Your task to perform on an android device: Clear the shopping cart on walmart.com. Add jbl charge 4 to the cart on walmart.com Image 0: 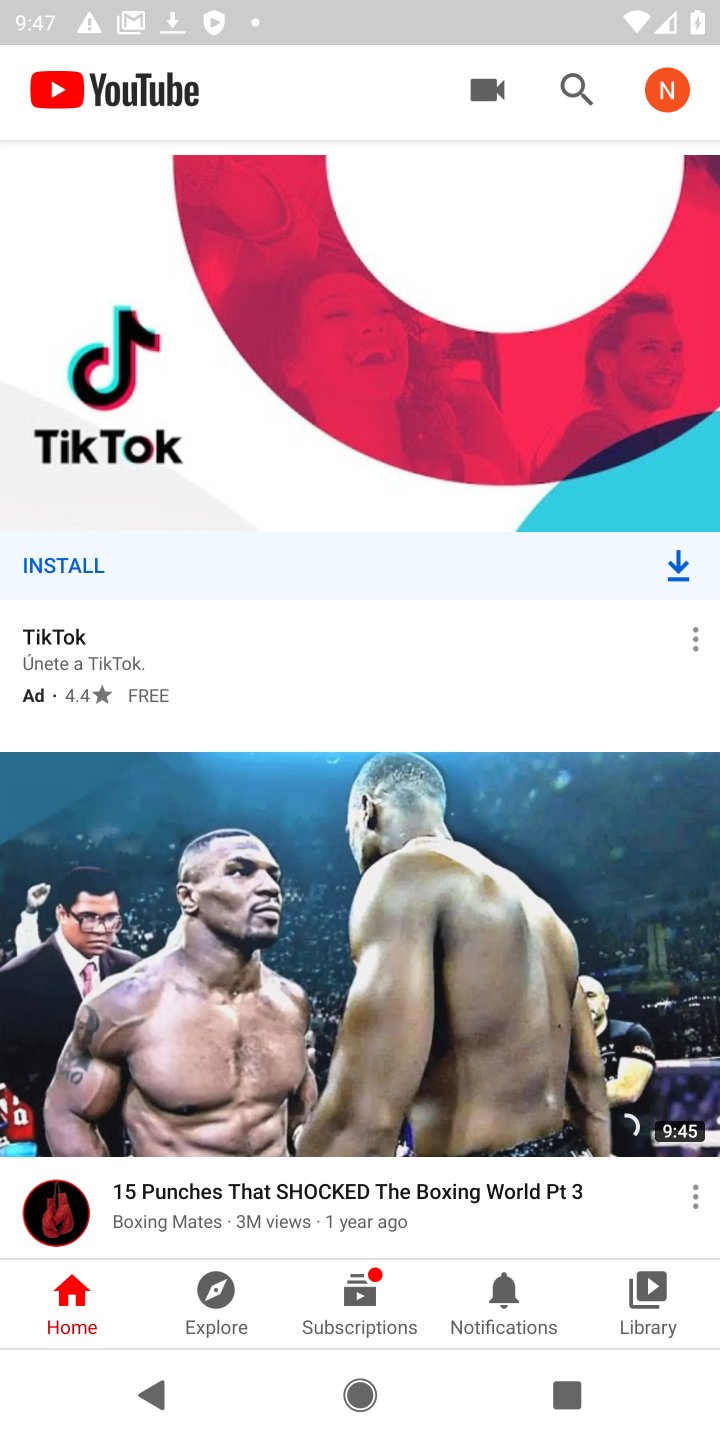
Step 0: press home button
Your task to perform on an android device: Clear the shopping cart on walmart.com. Add jbl charge 4 to the cart on walmart.com Image 1: 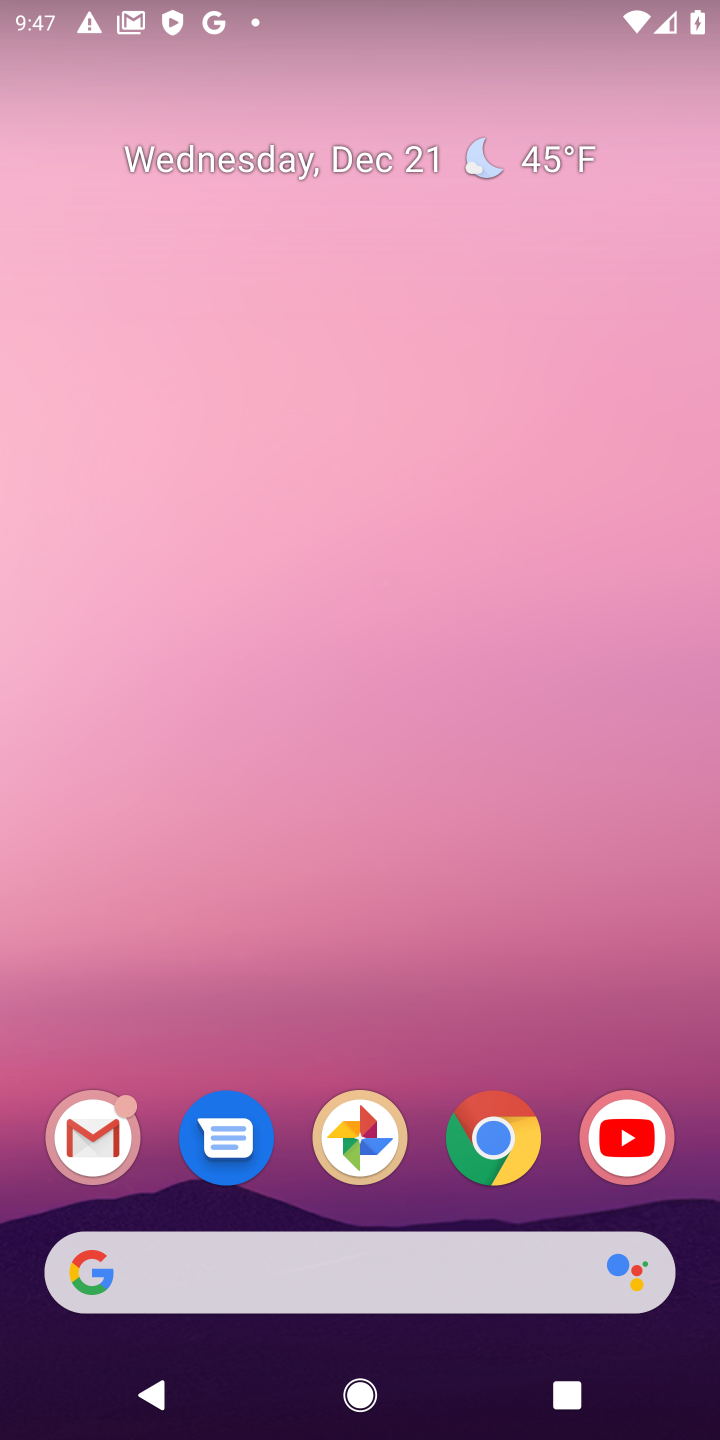
Step 1: click (502, 1144)
Your task to perform on an android device: Clear the shopping cart on walmart.com. Add jbl charge 4 to the cart on walmart.com Image 2: 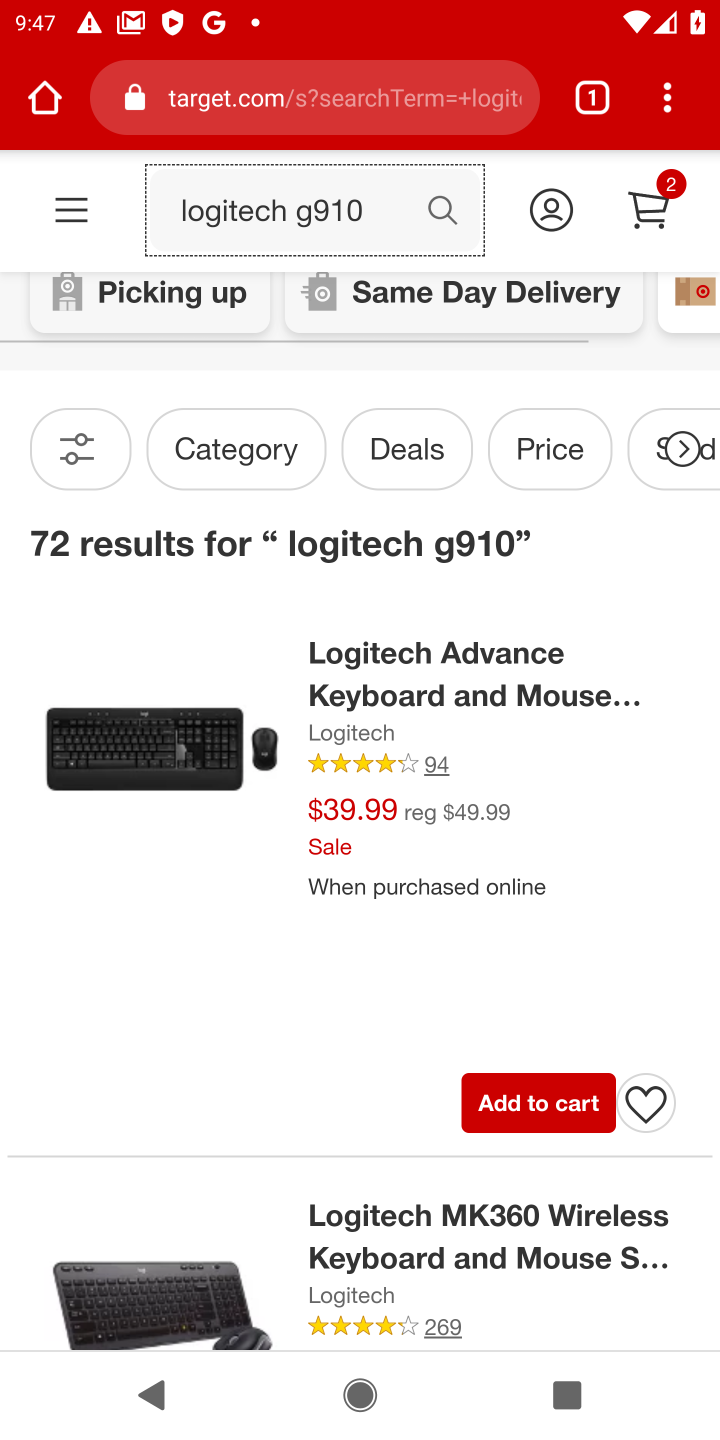
Step 2: click (302, 96)
Your task to perform on an android device: Clear the shopping cart on walmart.com. Add jbl charge 4 to the cart on walmart.com Image 3: 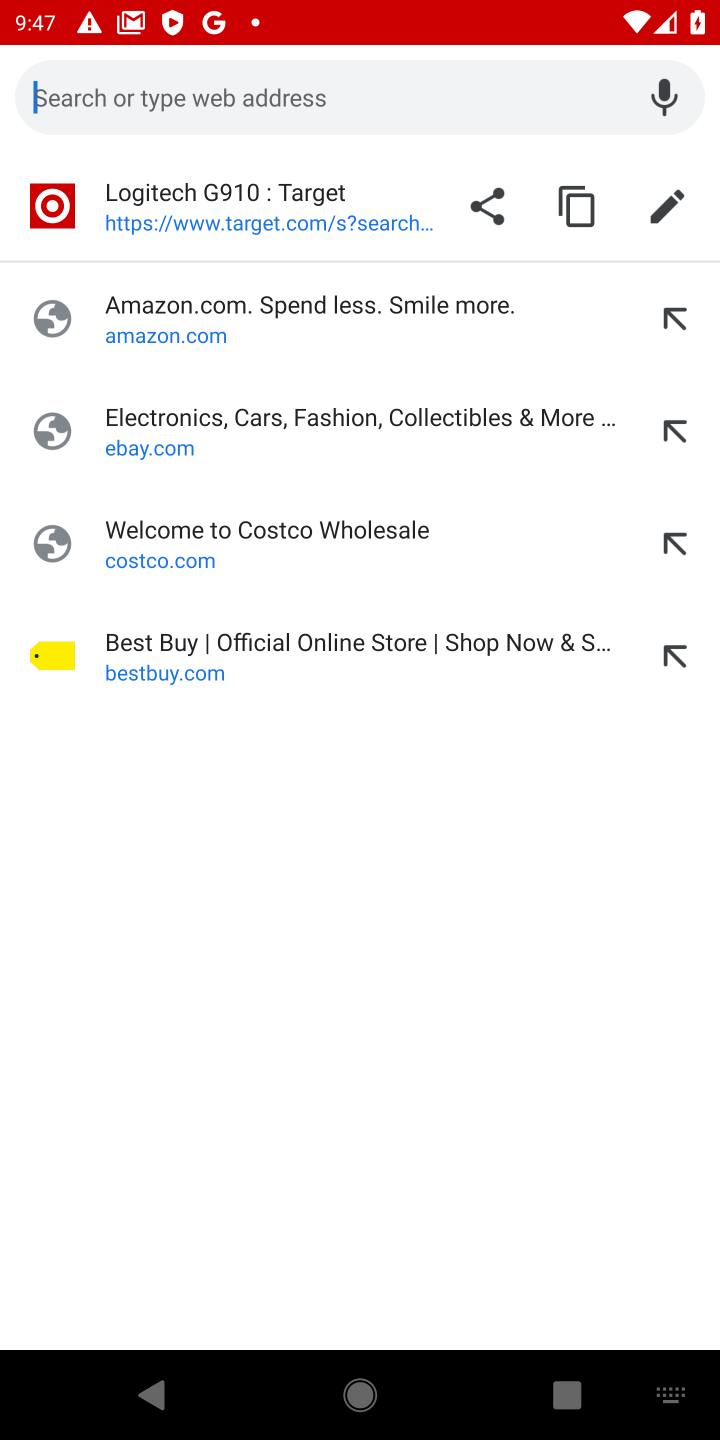
Step 3: type "walmart.com"
Your task to perform on an android device: Clear the shopping cart on walmart.com. Add jbl charge 4 to the cart on walmart.com Image 4: 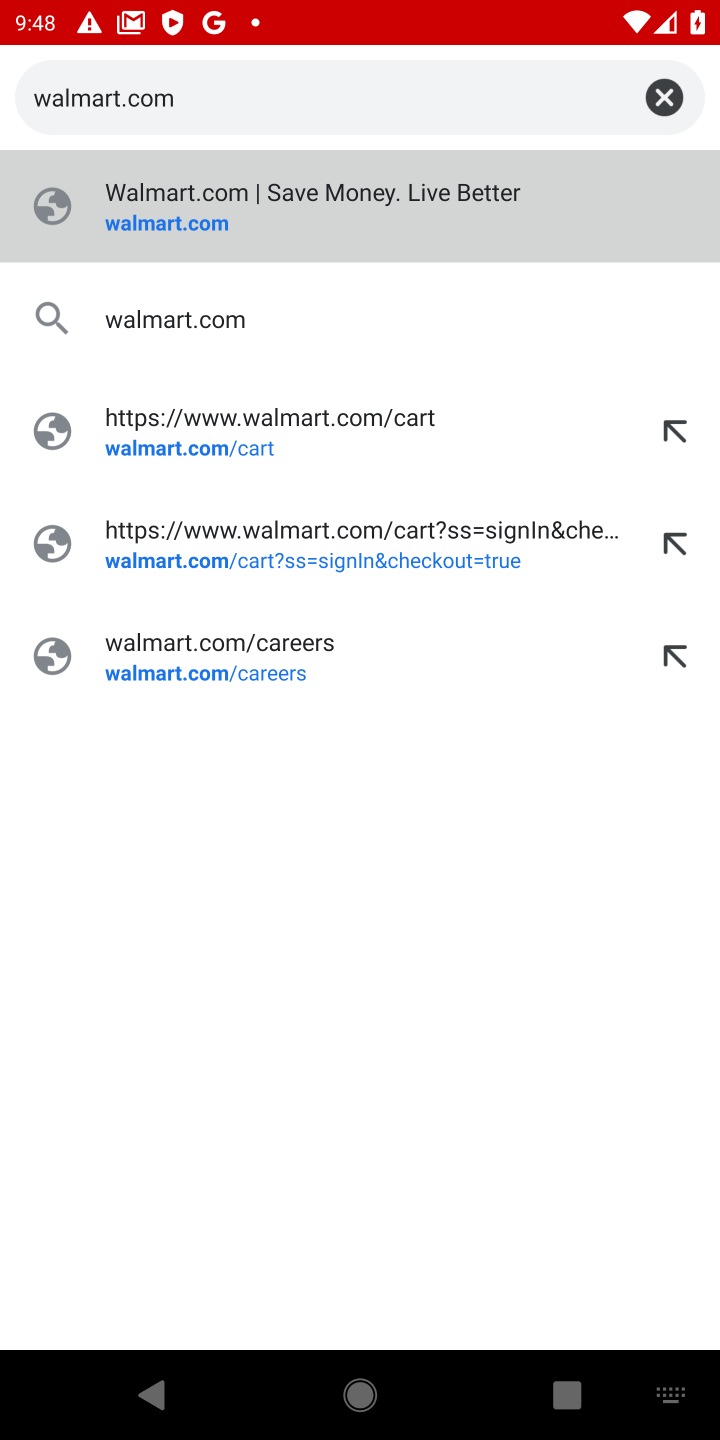
Step 4: click (161, 227)
Your task to perform on an android device: Clear the shopping cart on walmart.com. Add jbl charge 4 to the cart on walmart.com Image 5: 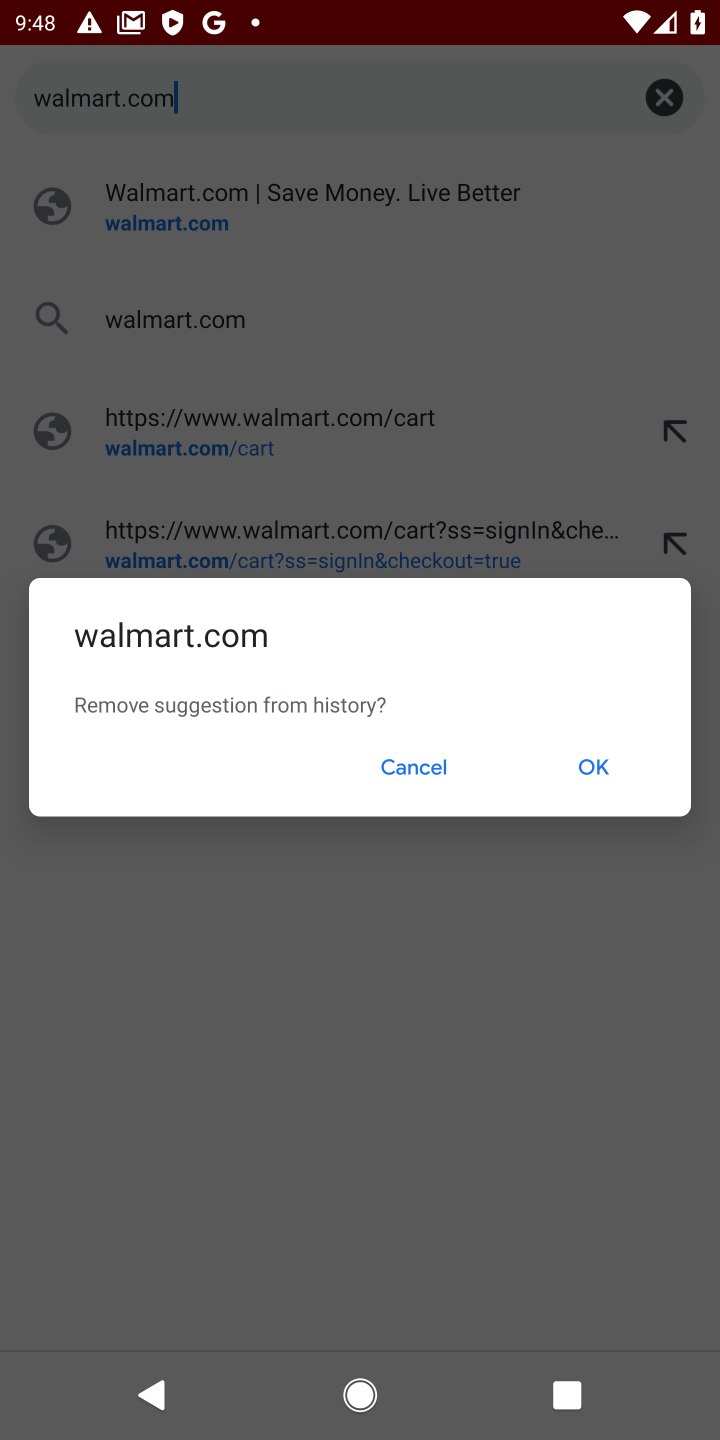
Step 5: click (404, 773)
Your task to perform on an android device: Clear the shopping cart on walmart.com. Add jbl charge 4 to the cart on walmart.com Image 6: 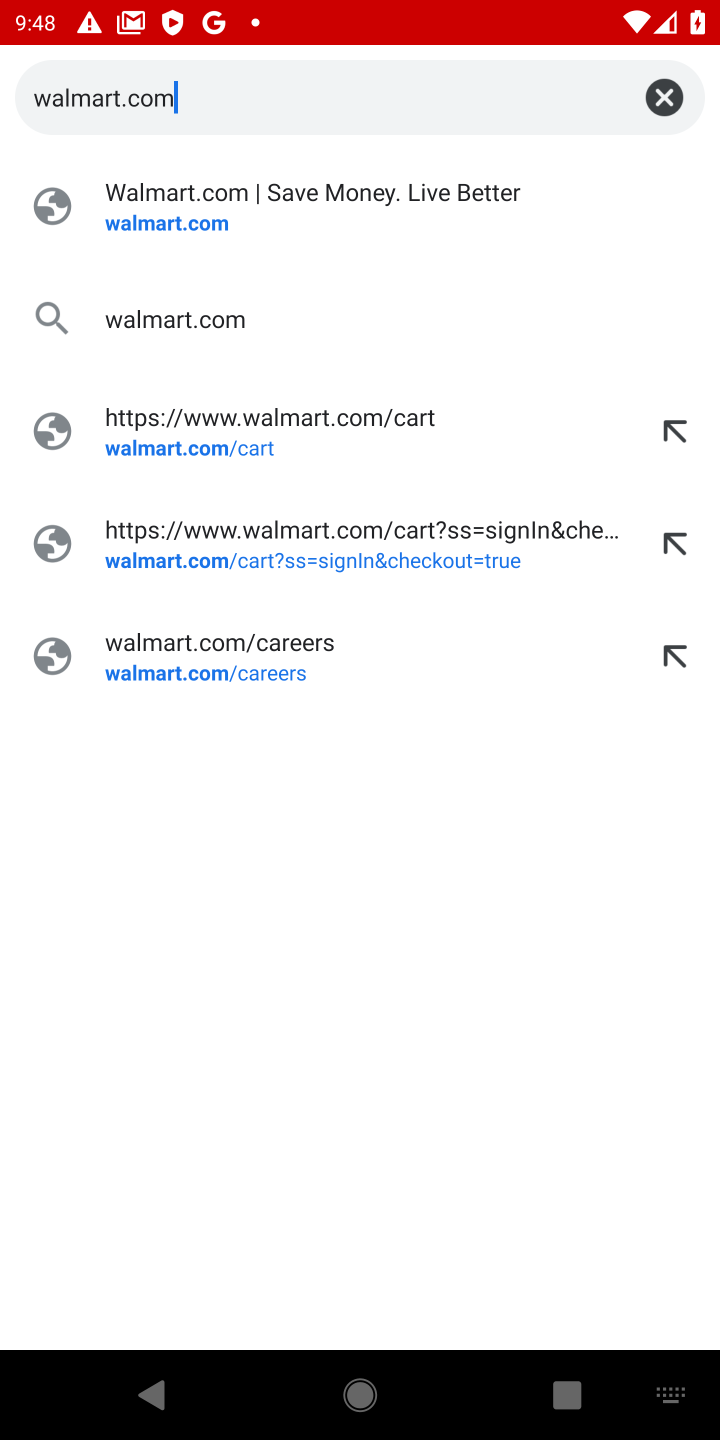
Step 6: click (164, 228)
Your task to perform on an android device: Clear the shopping cart on walmart.com. Add jbl charge 4 to the cart on walmart.com Image 7: 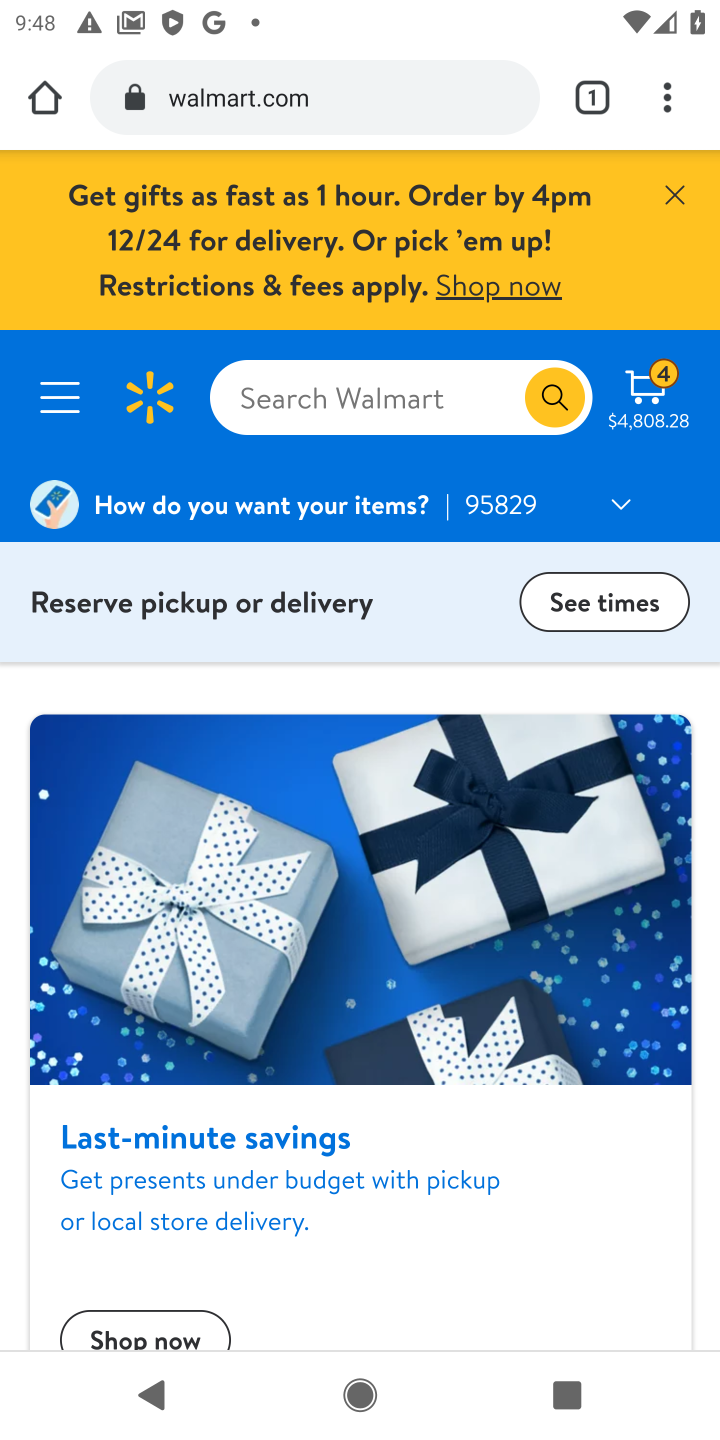
Step 7: click (649, 387)
Your task to perform on an android device: Clear the shopping cart on walmart.com. Add jbl charge 4 to the cart on walmart.com Image 8: 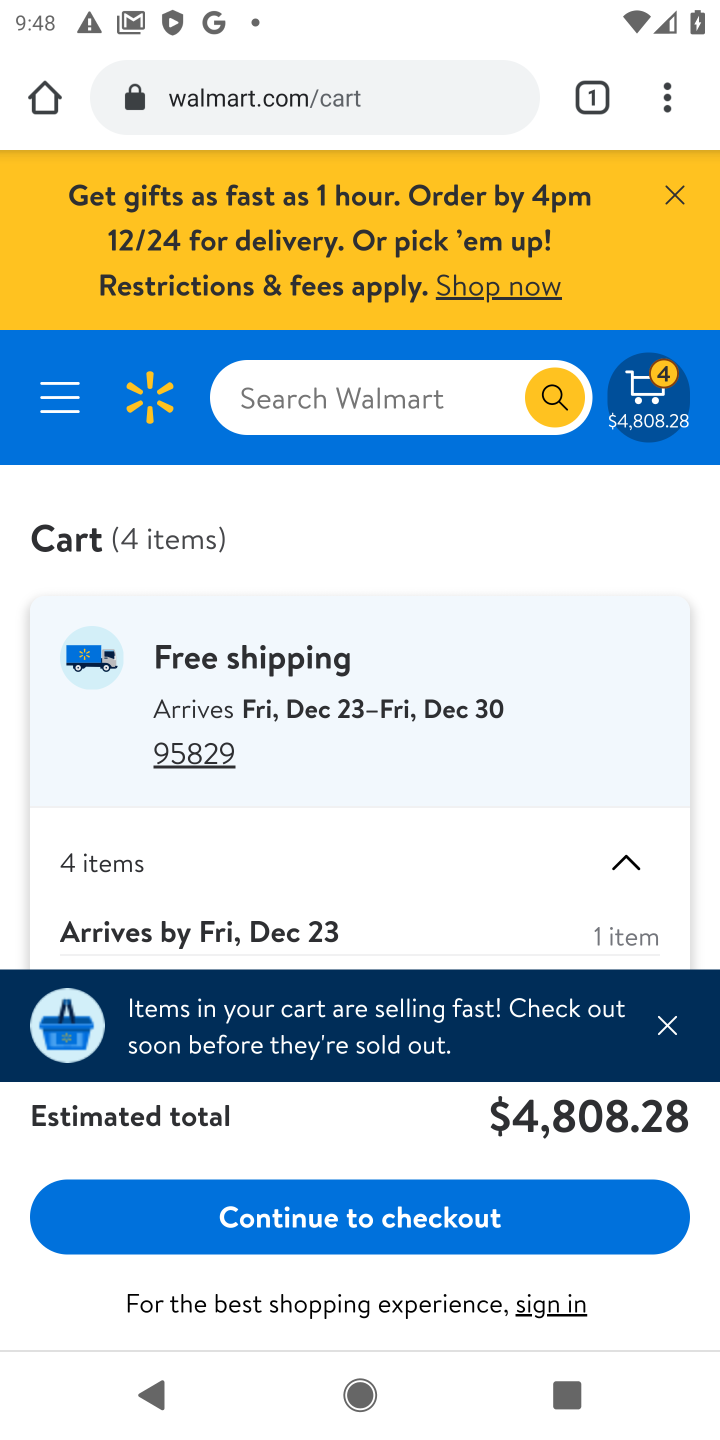
Step 8: drag from (299, 808) to (323, 251)
Your task to perform on an android device: Clear the shopping cart on walmart.com. Add jbl charge 4 to the cart on walmart.com Image 9: 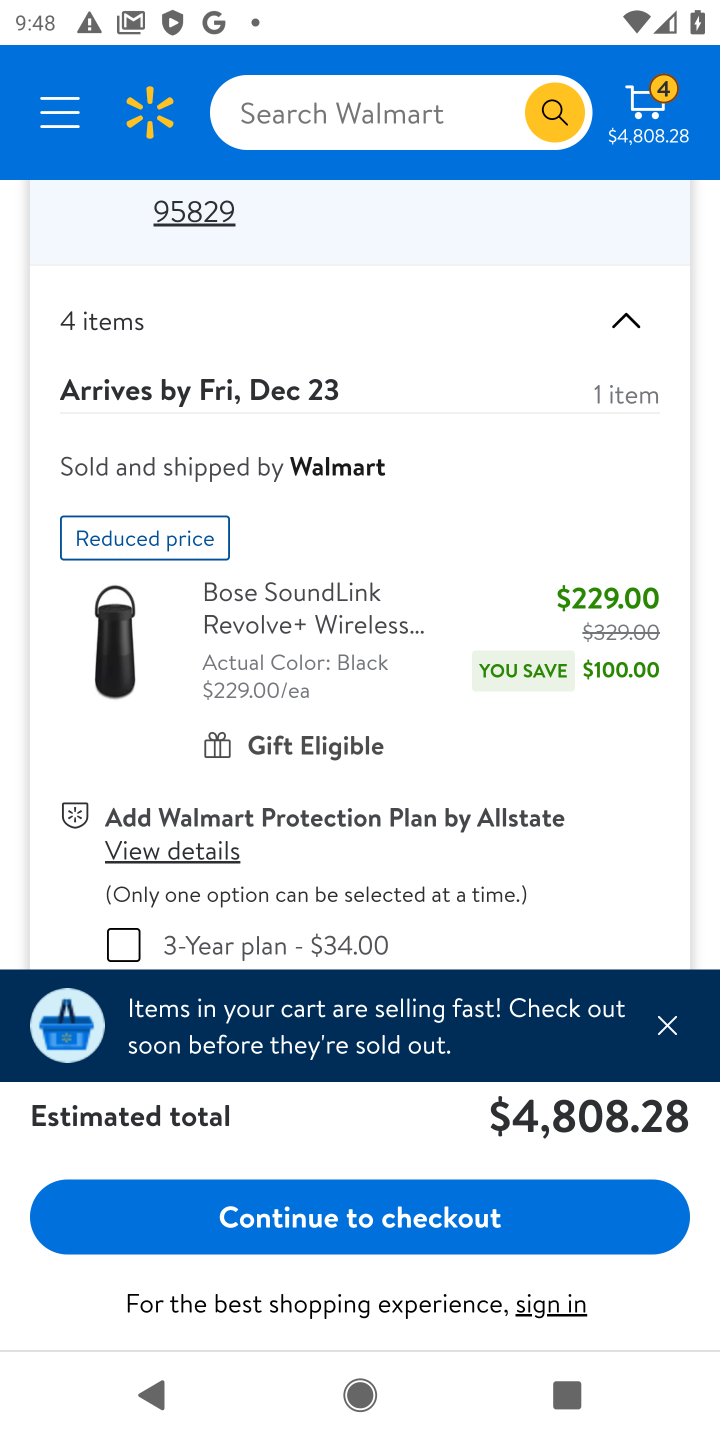
Step 9: drag from (257, 583) to (285, 369)
Your task to perform on an android device: Clear the shopping cart on walmart.com. Add jbl charge 4 to the cart on walmart.com Image 10: 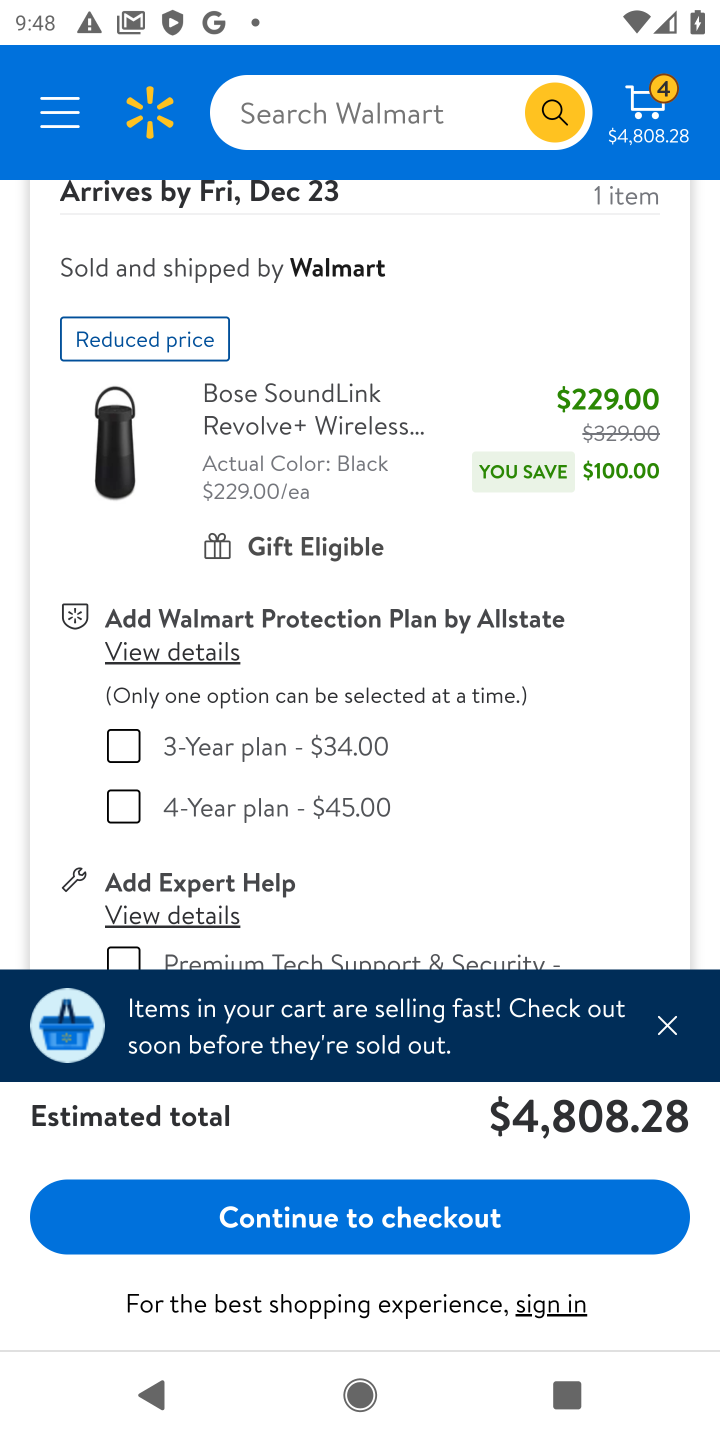
Step 10: drag from (350, 637) to (345, 453)
Your task to perform on an android device: Clear the shopping cart on walmart.com. Add jbl charge 4 to the cart on walmart.com Image 11: 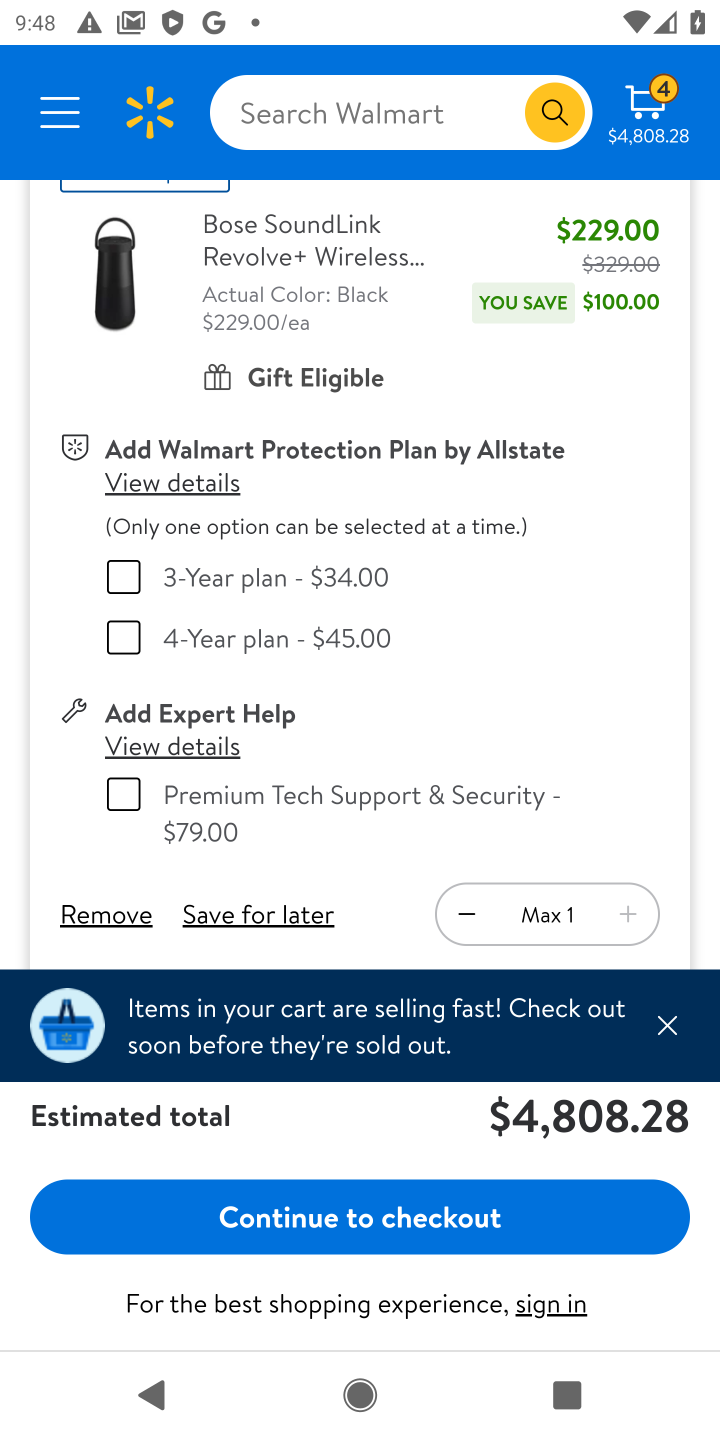
Step 11: click (95, 918)
Your task to perform on an android device: Clear the shopping cart on walmart.com. Add jbl charge 4 to the cart on walmart.com Image 12: 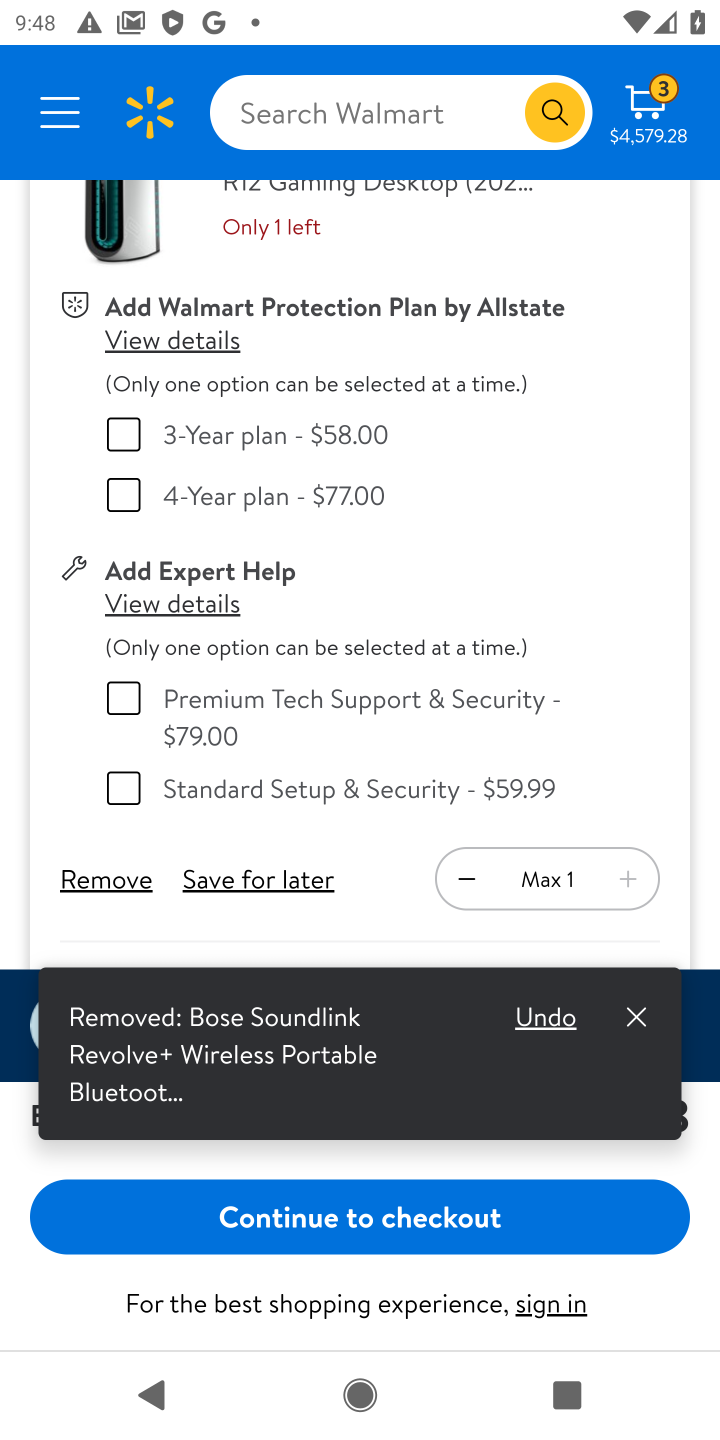
Step 12: click (100, 889)
Your task to perform on an android device: Clear the shopping cart on walmart.com. Add jbl charge 4 to the cart on walmart.com Image 13: 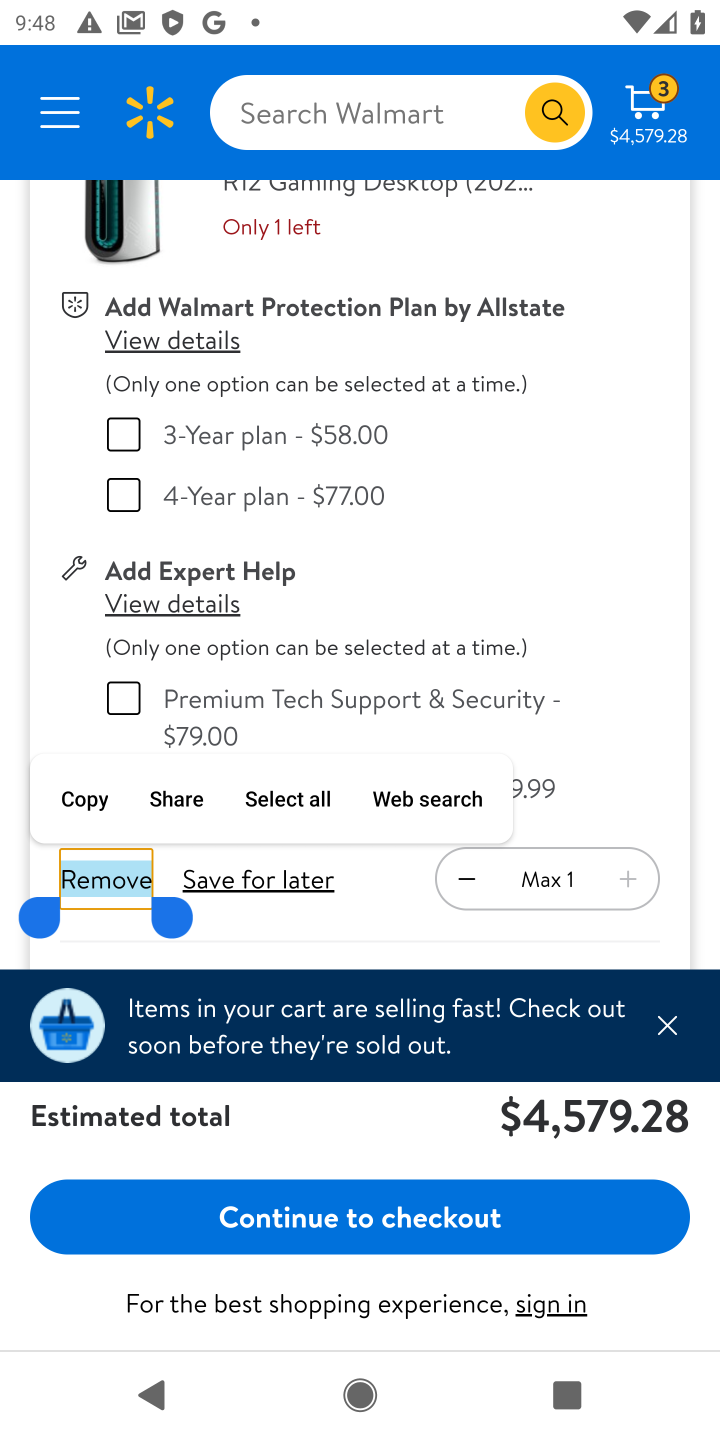
Step 13: click (100, 888)
Your task to perform on an android device: Clear the shopping cart on walmart.com. Add jbl charge 4 to the cart on walmart.com Image 14: 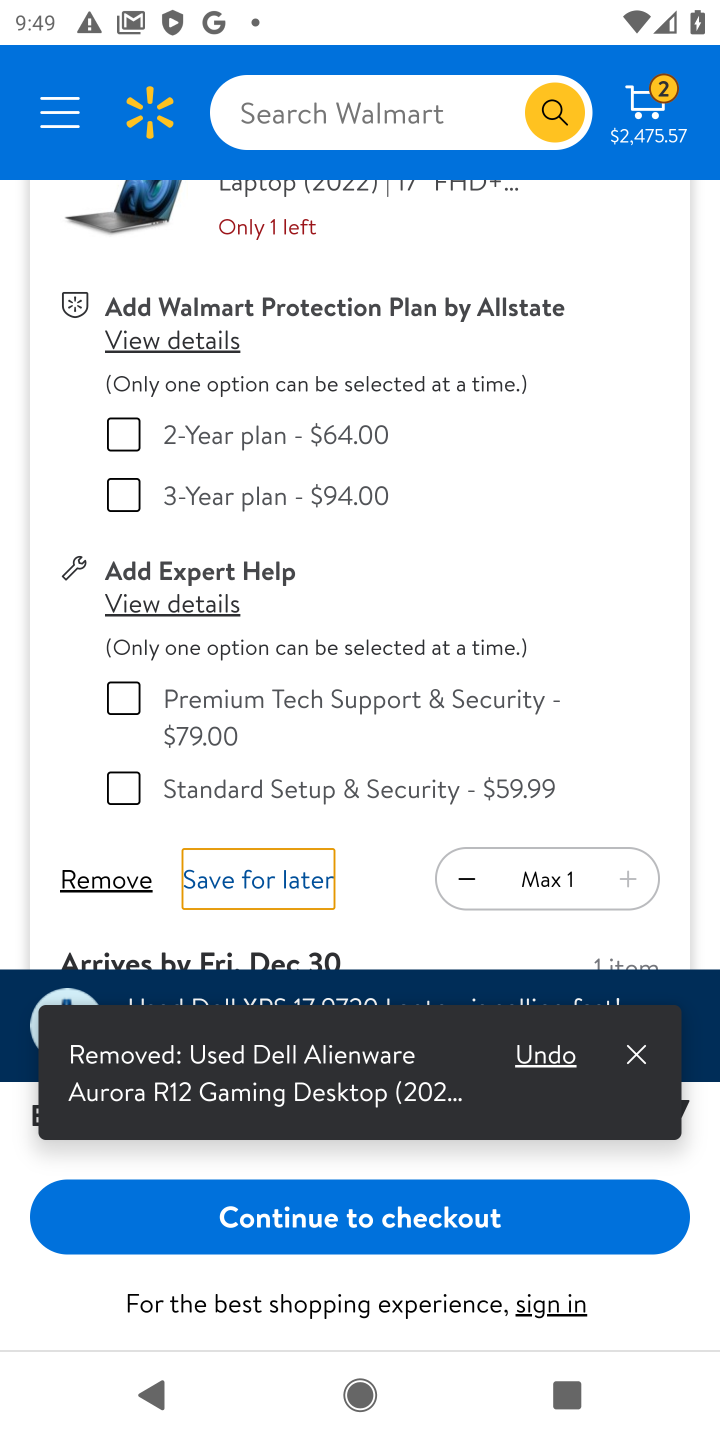
Step 14: click (83, 881)
Your task to perform on an android device: Clear the shopping cart on walmart.com. Add jbl charge 4 to the cart on walmart.com Image 15: 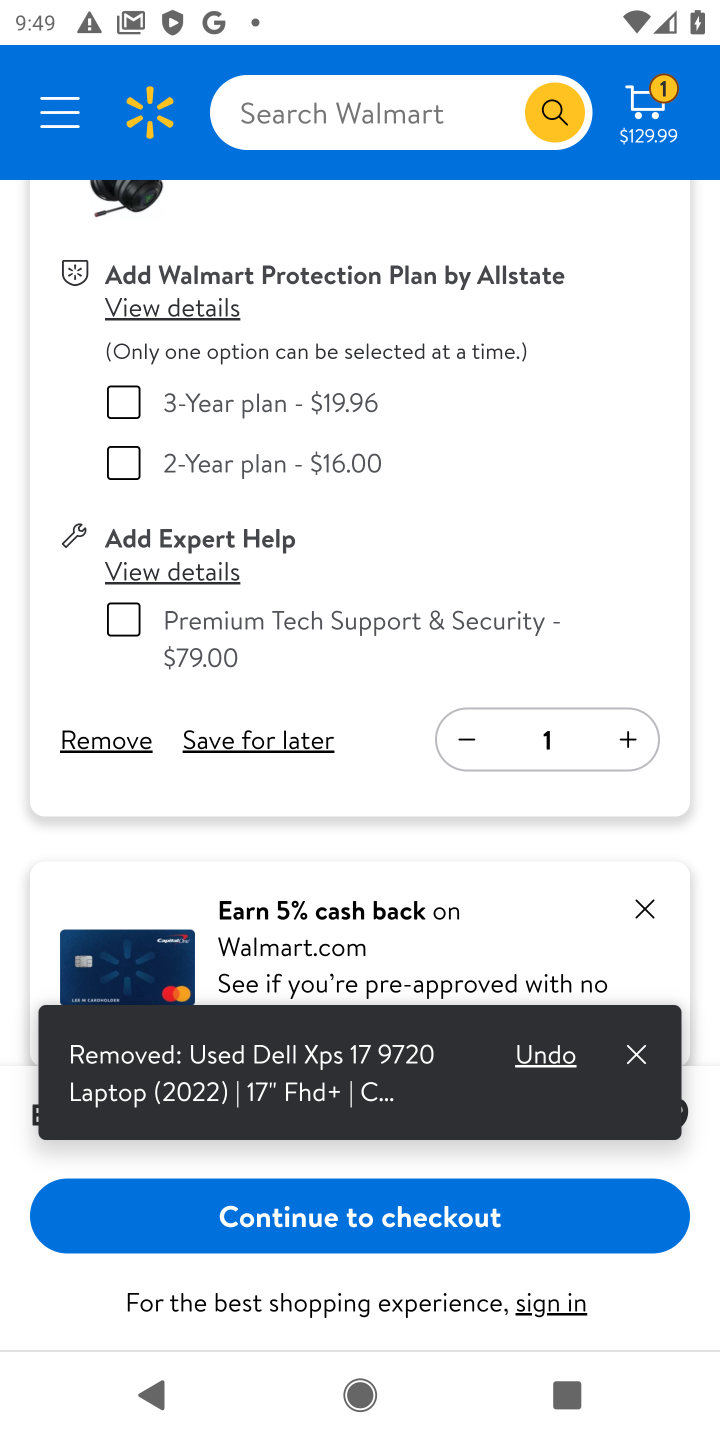
Step 15: click (99, 739)
Your task to perform on an android device: Clear the shopping cart on walmart.com. Add jbl charge 4 to the cart on walmart.com Image 16: 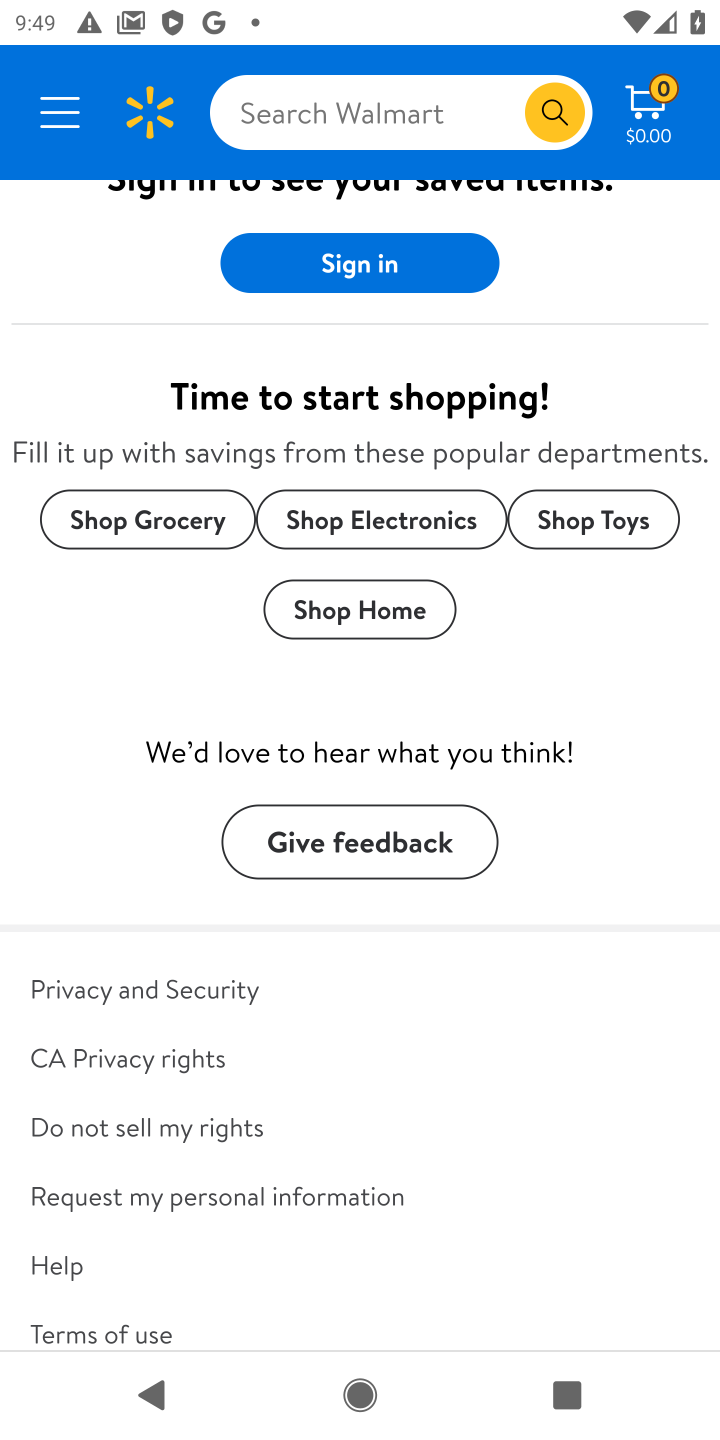
Step 16: drag from (460, 739) to (472, 1047)
Your task to perform on an android device: Clear the shopping cart on walmart.com. Add jbl charge 4 to the cart on walmart.com Image 17: 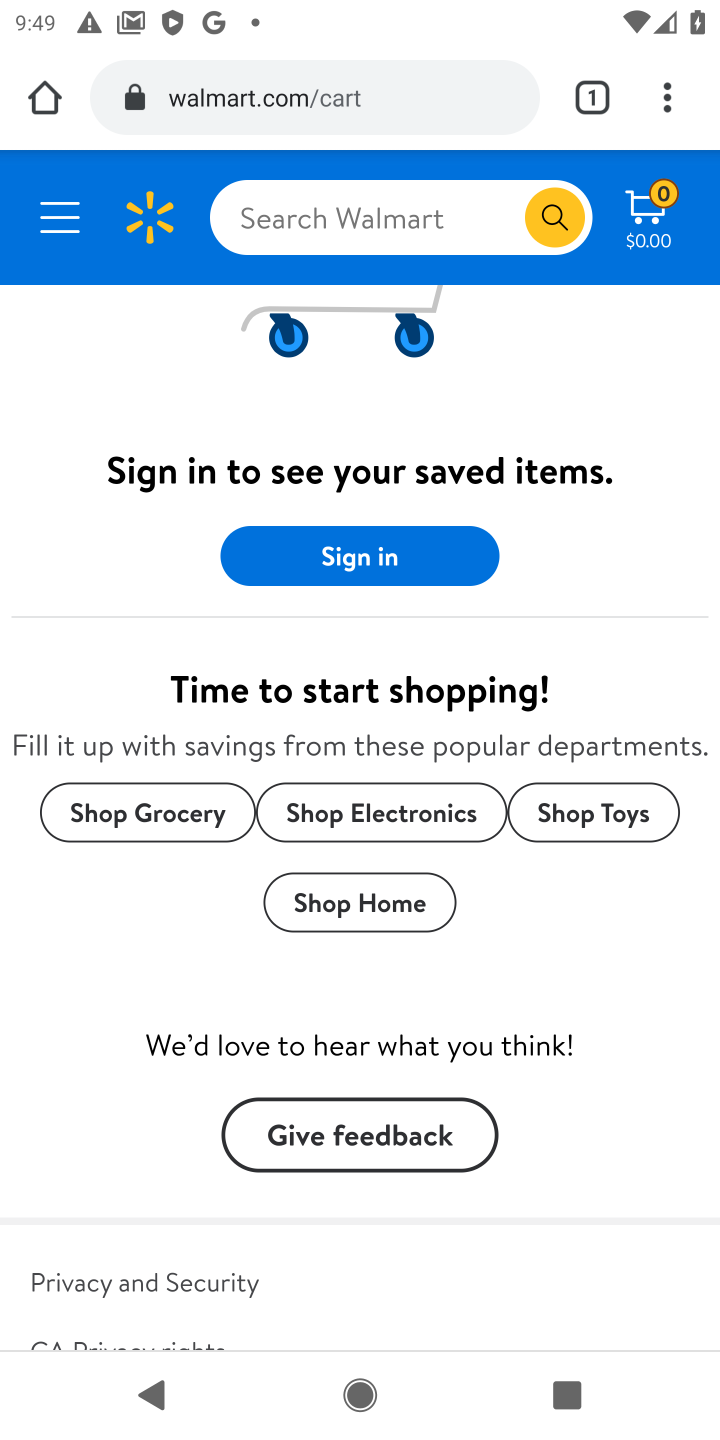
Step 17: click (311, 222)
Your task to perform on an android device: Clear the shopping cart on walmart.com. Add jbl charge 4 to the cart on walmart.com Image 18: 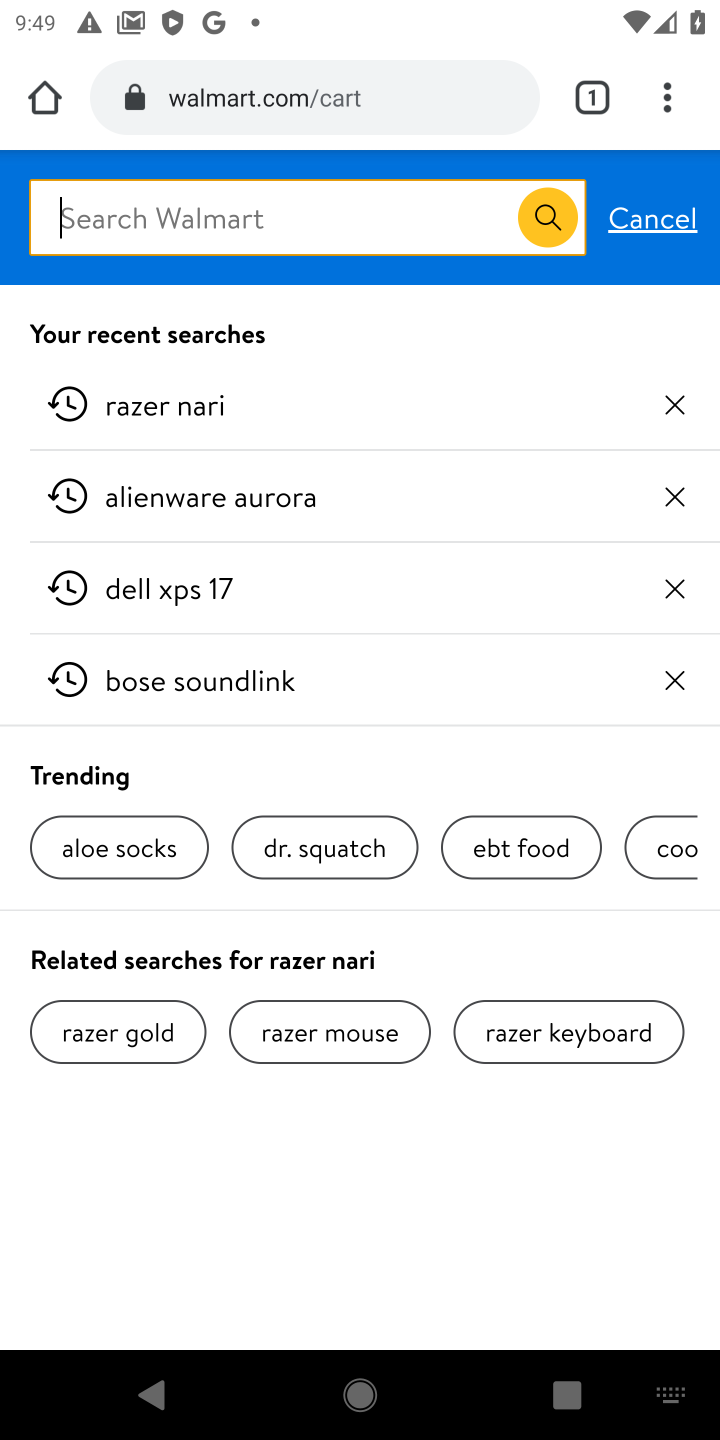
Step 18: type " jbl charge 4 "
Your task to perform on an android device: Clear the shopping cart on walmart.com. Add jbl charge 4 to the cart on walmart.com Image 19: 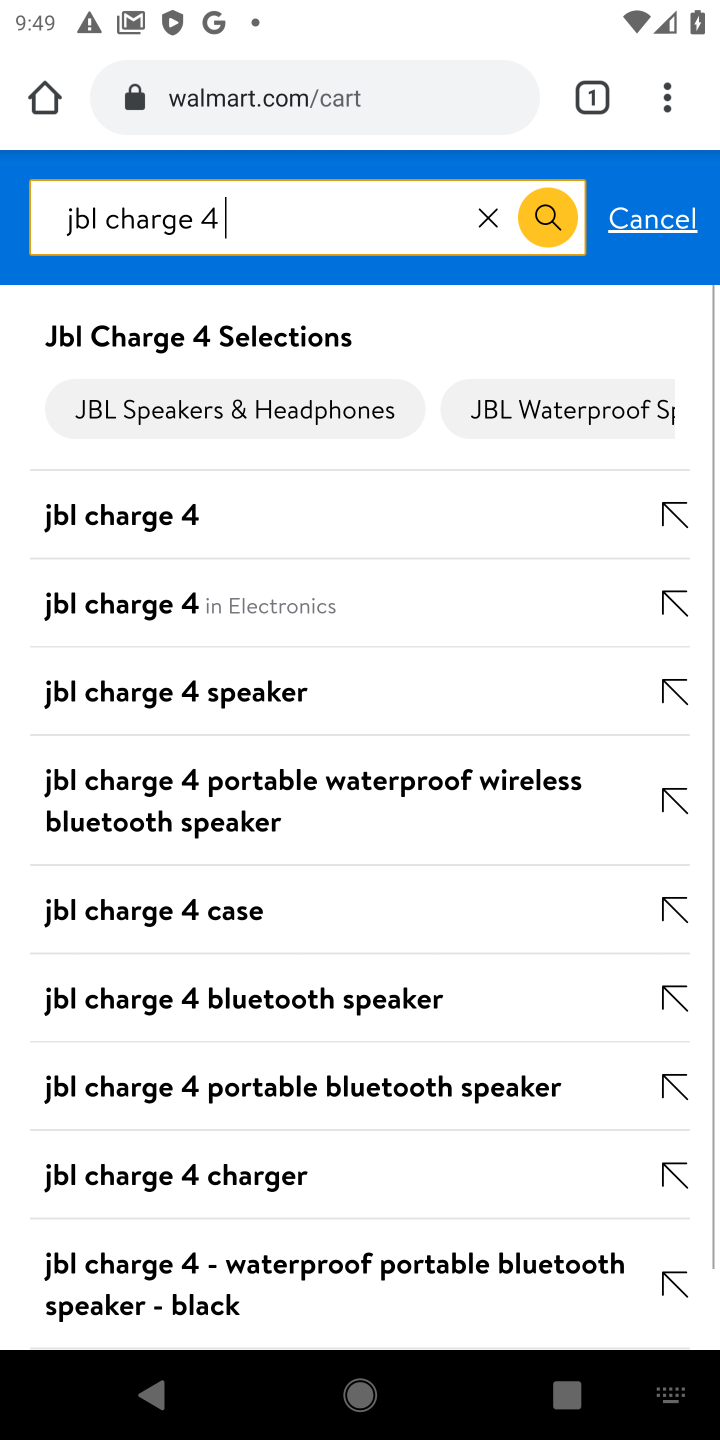
Step 19: click (94, 522)
Your task to perform on an android device: Clear the shopping cart on walmart.com. Add jbl charge 4 to the cart on walmart.com Image 20: 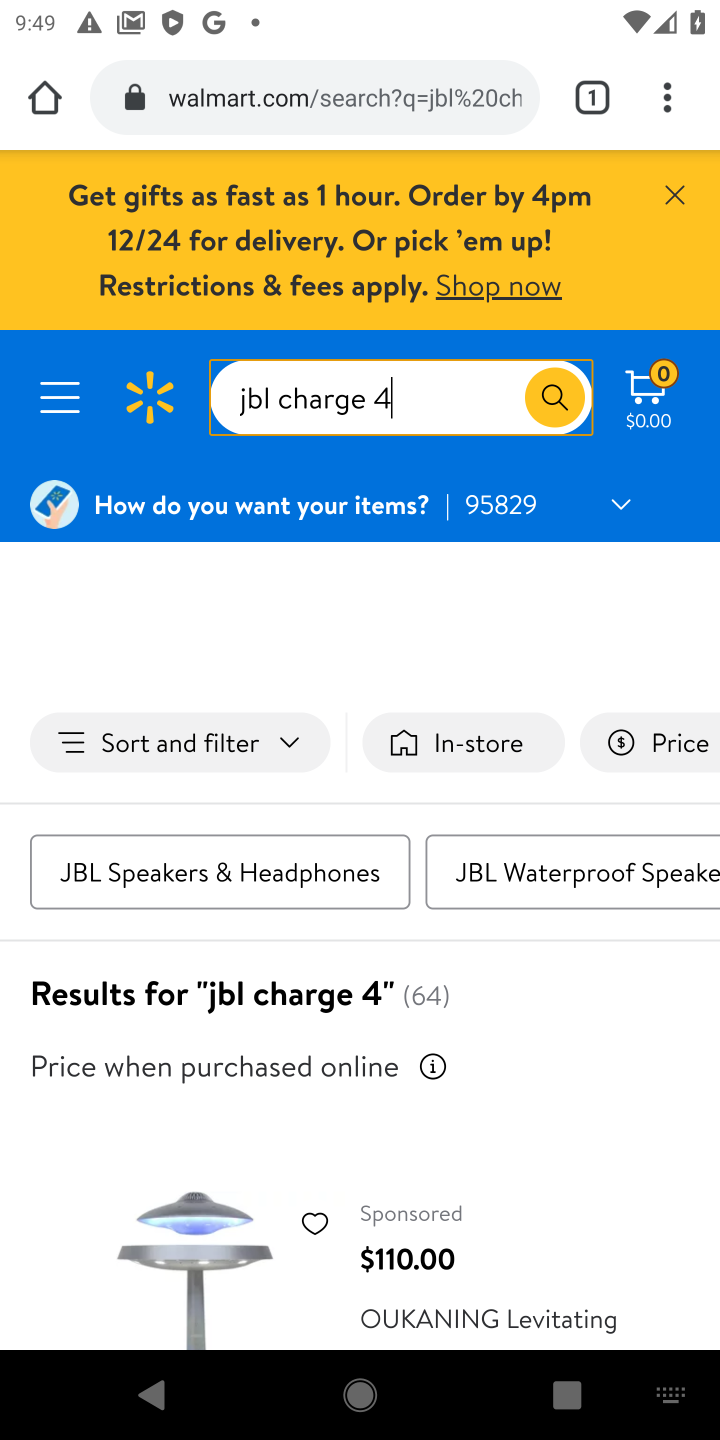
Step 20: drag from (306, 929) to (339, 441)
Your task to perform on an android device: Clear the shopping cart on walmart.com. Add jbl charge 4 to the cart on walmart.com Image 21: 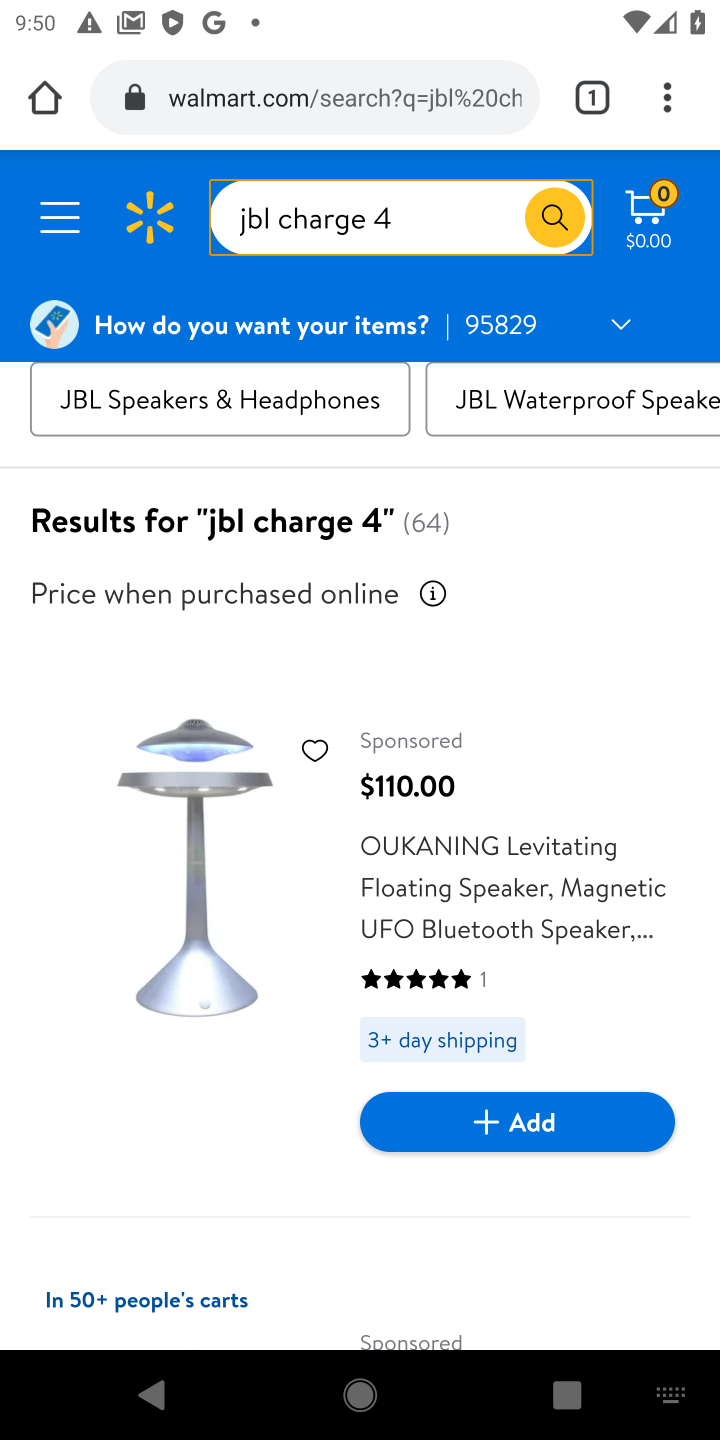
Step 21: drag from (290, 949) to (306, 456)
Your task to perform on an android device: Clear the shopping cart on walmart.com. Add jbl charge 4 to the cart on walmart.com Image 22: 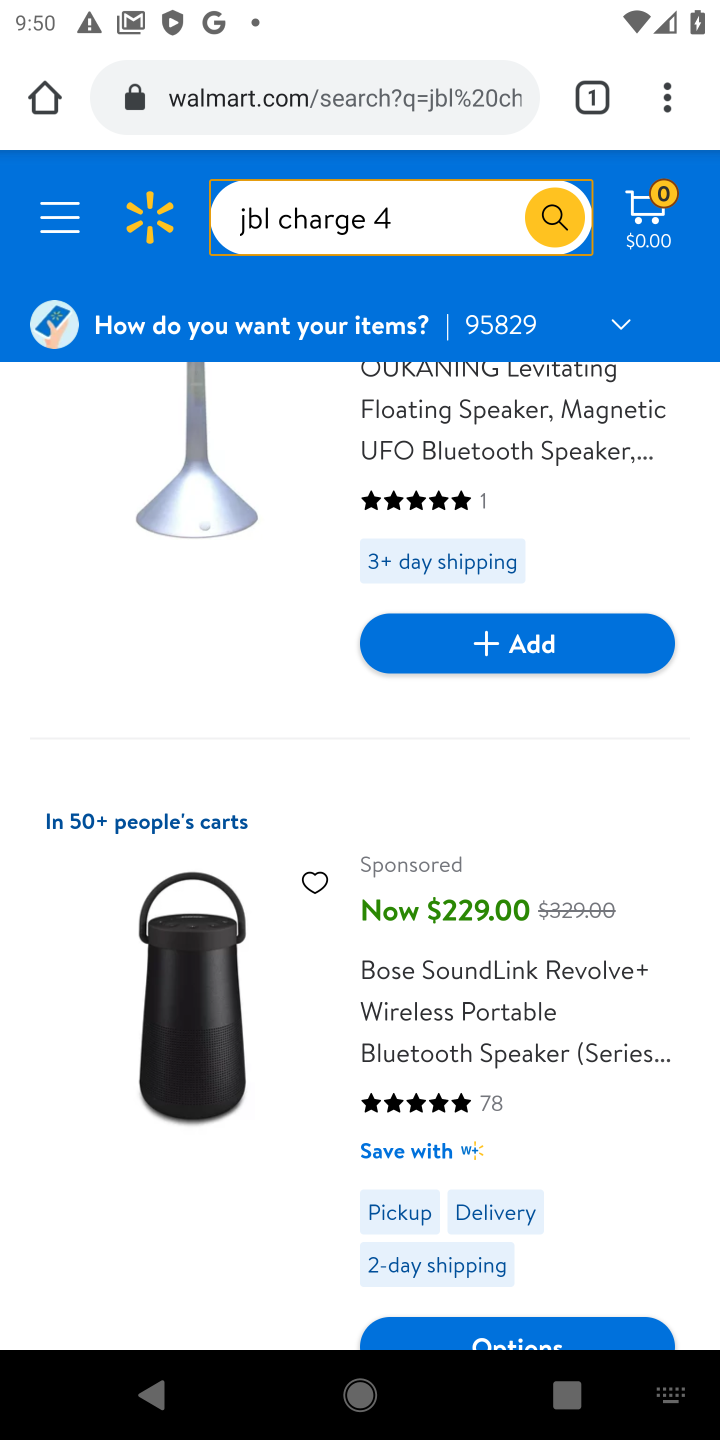
Step 22: drag from (272, 1036) to (284, 654)
Your task to perform on an android device: Clear the shopping cart on walmart.com. Add jbl charge 4 to the cart on walmart.com Image 23: 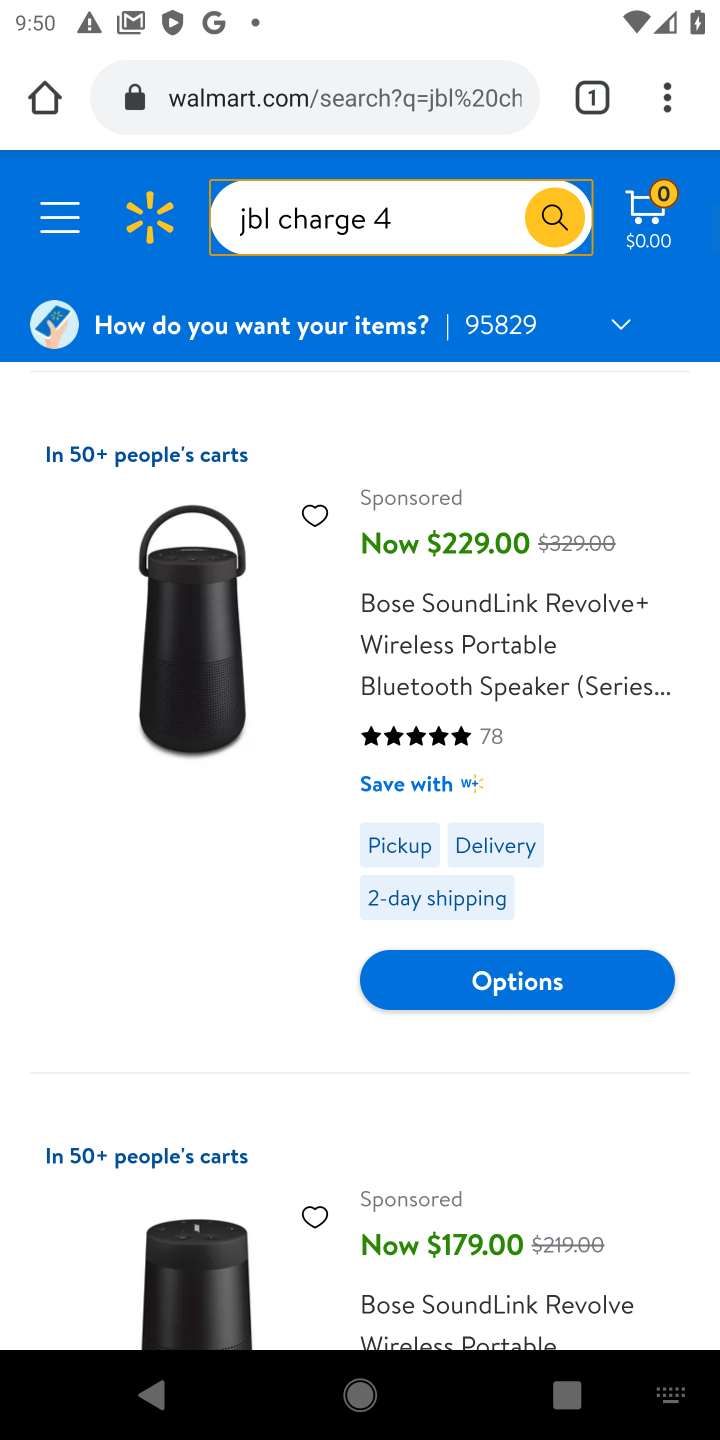
Step 23: drag from (265, 1220) to (304, 618)
Your task to perform on an android device: Clear the shopping cart on walmart.com. Add jbl charge 4 to the cart on walmart.com Image 24: 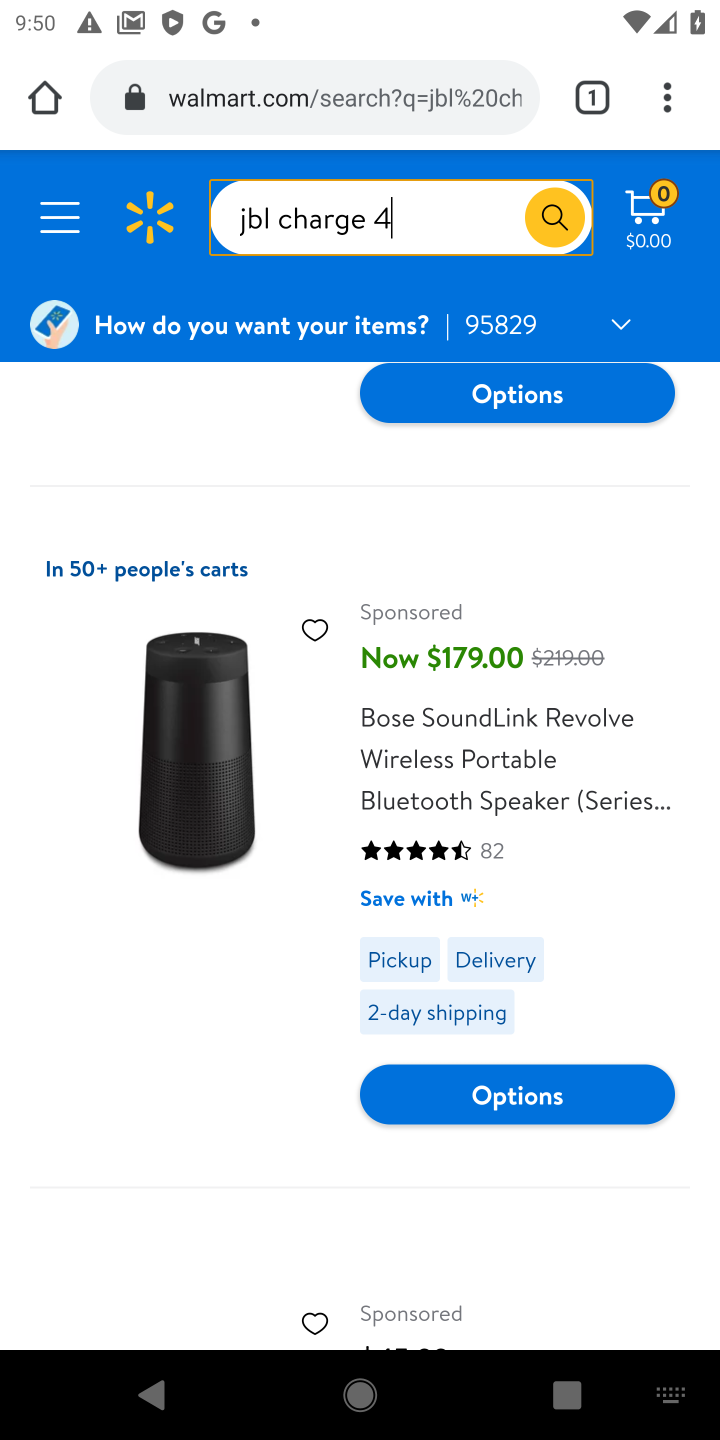
Step 24: drag from (311, 888) to (325, 626)
Your task to perform on an android device: Clear the shopping cart on walmart.com. Add jbl charge 4 to the cart on walmart.com Image 25: 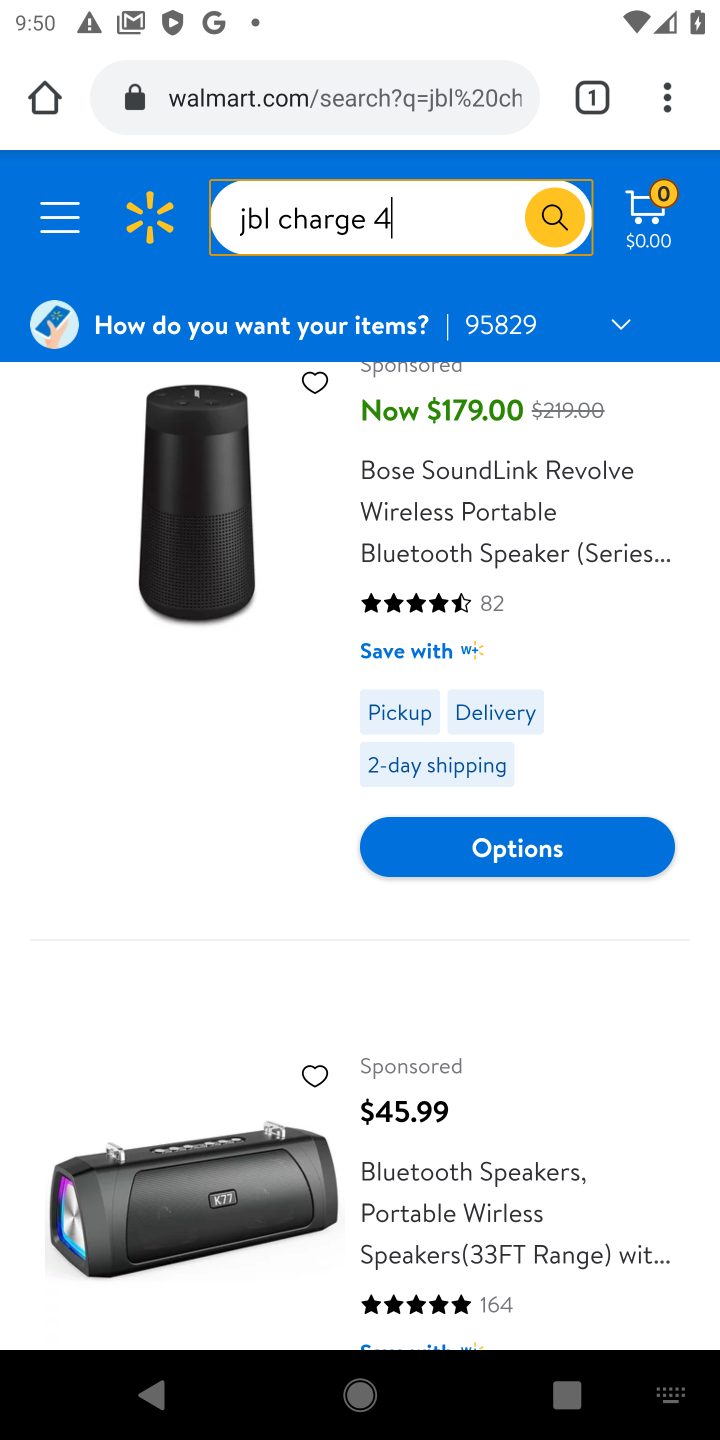
Step 25: drag from (316, 1084) to (275, 518)
Your task to perform on an android device: Clear the shopping cart on walmart.com. Add jbl charge 4 to the cart on walmart.com Image 26: 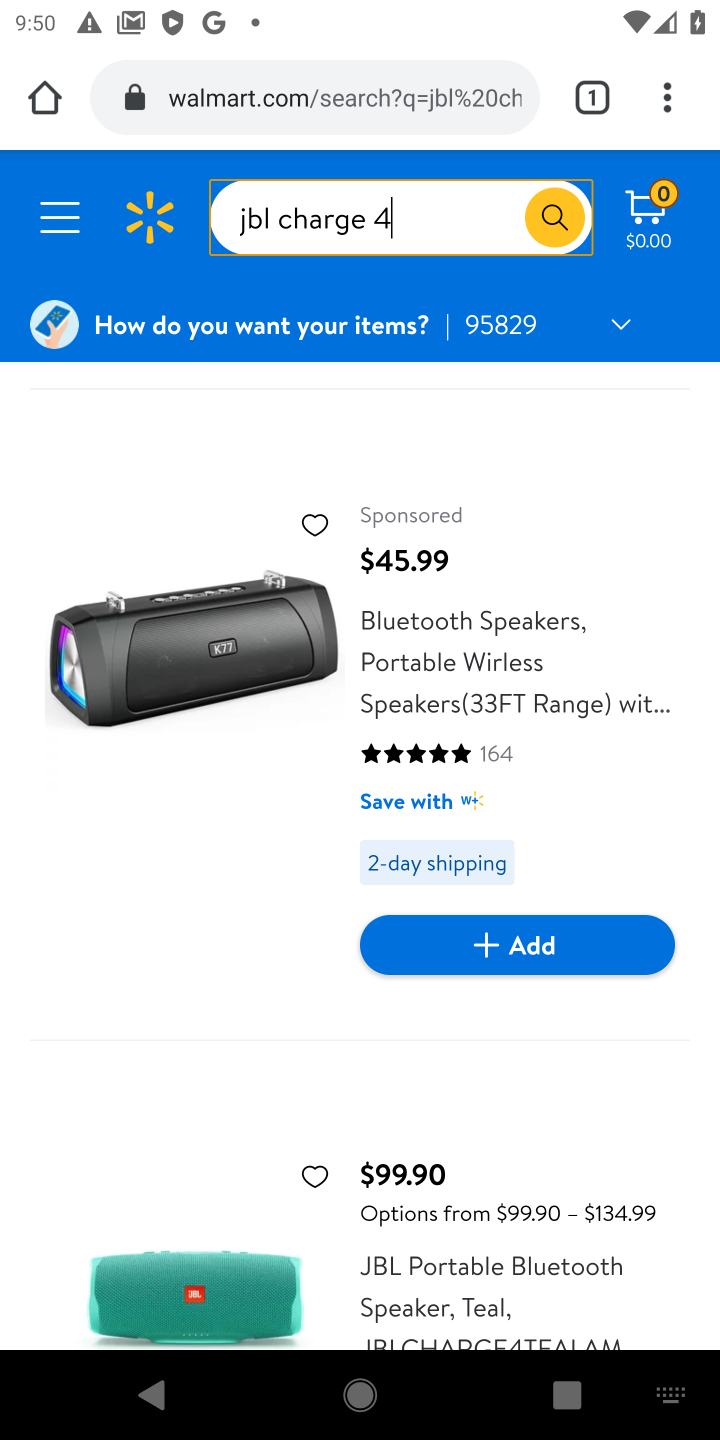
Step 26: drag from (306, 1154) to (306, 708)
Your task to perform on an android device: Clear the shopping cart on walmart.com. Add jbl charge 4 to the cart on walmart.com Image 27: 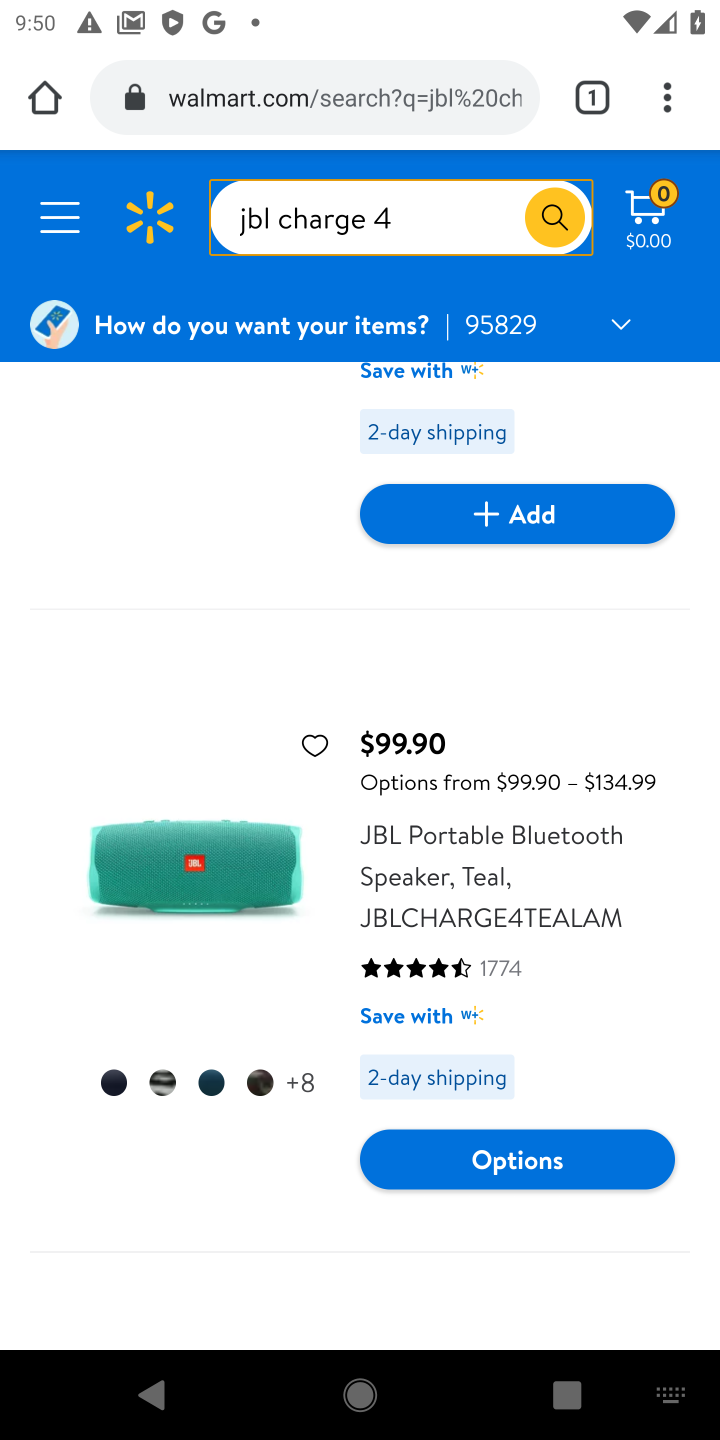
Step 27: click (488, 916)
Your task to perform on an android device: Clear the shopping cart on walmart.com. Add jbl charge 4 to the cart on walmart.com Image 28: 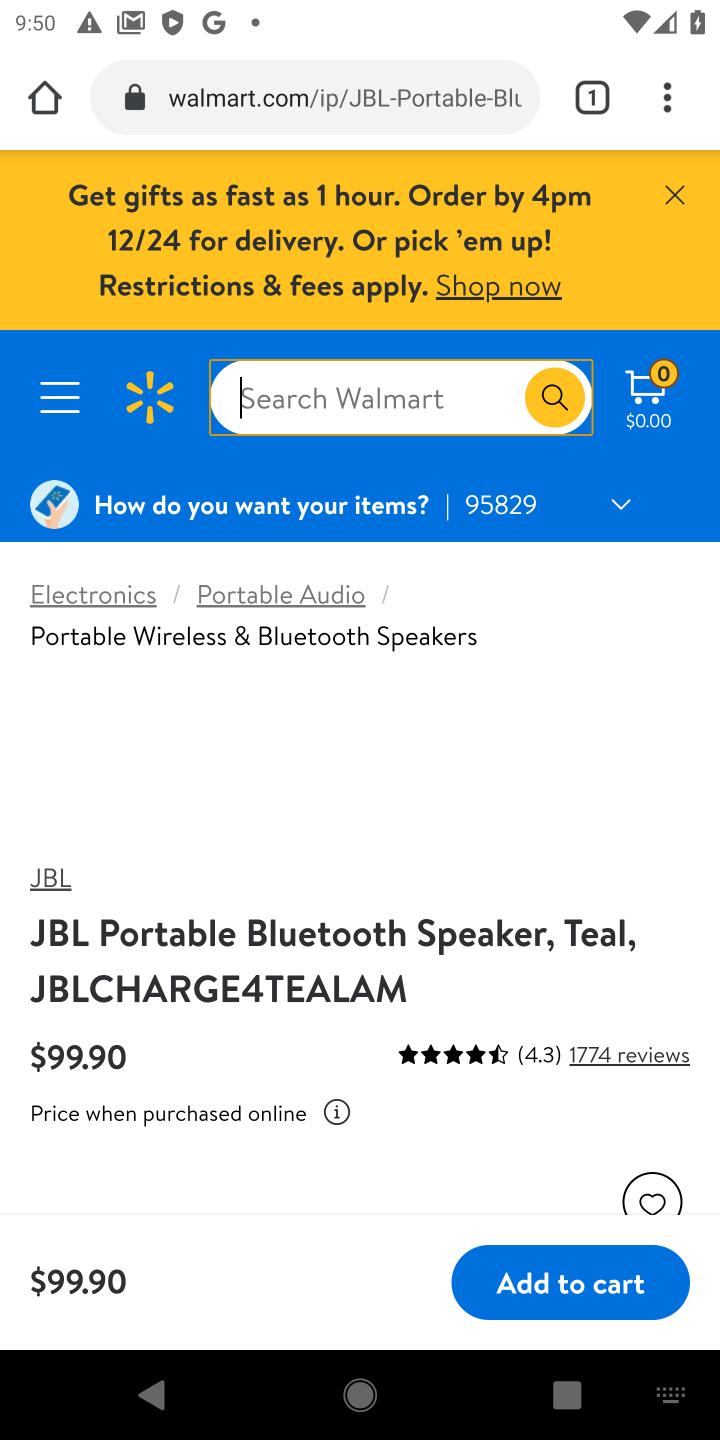
Step 28: click (542, 1279)
Your task to perform on an android device: Clear the shopping cart on walmart.com. Add jbl charge 4 to the cart on walmart.com Image 29: 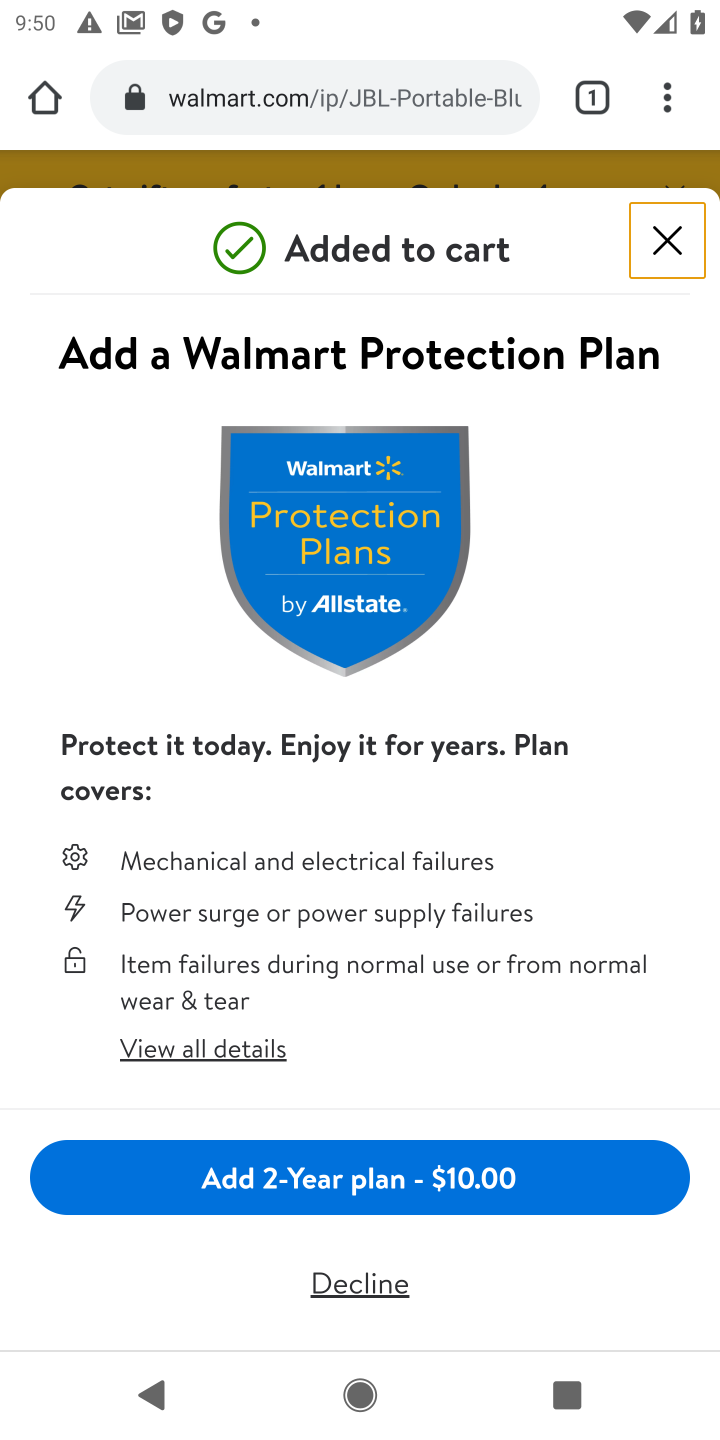
Step 29: task complete